Your task to perform on an android device: change alarm snooze length Image 0: 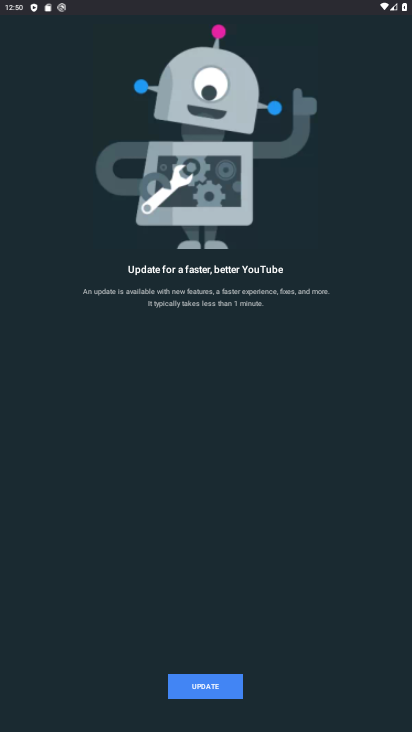
Step 0: press home button
Your task to perform on an android device: change alarm snooze length Image 1: 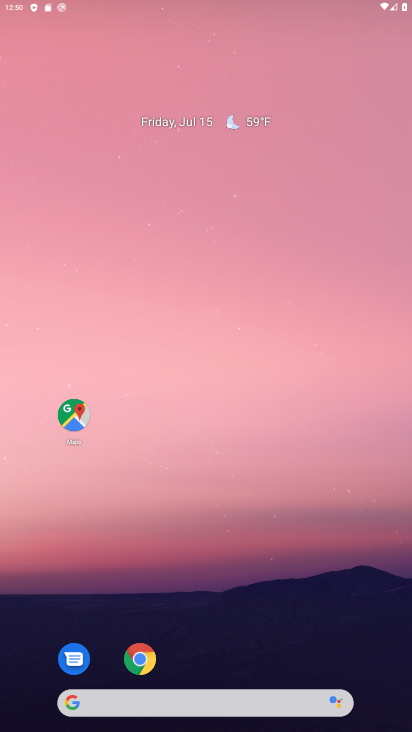
Step 1: drag from (213, 655) to (296, 133)
Your task to perform on an android device: change alarm snooze length Image 2: 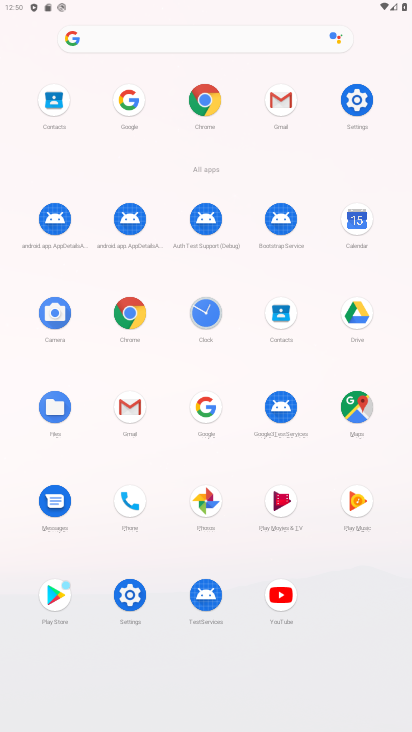
Step 2: click (206, 314)
Your task to perform on an android device: change alarm snooze length Image 3: 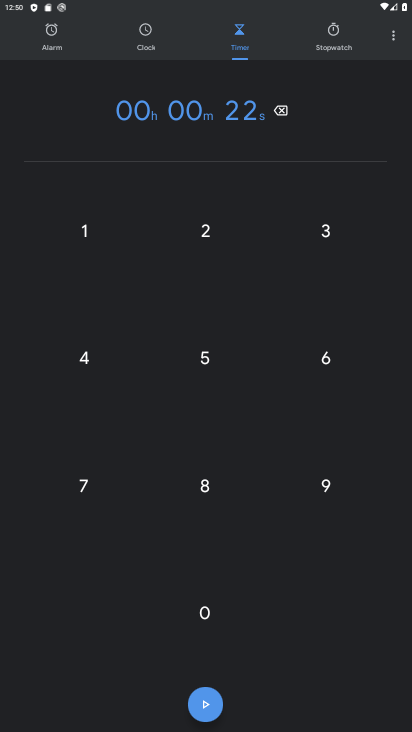
Step 3: click (390, 33)
Your task to perform on an android device: change alarm snooze length Image 4: 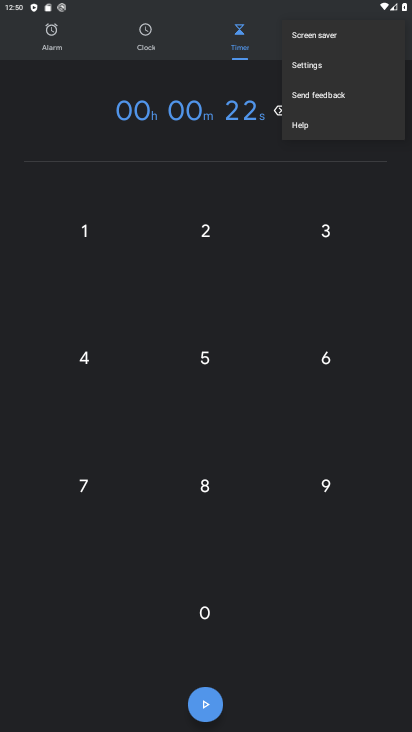
Step 4: click (307, 70)
Your task to perform on an android device: change alarm snooze length Image 5: 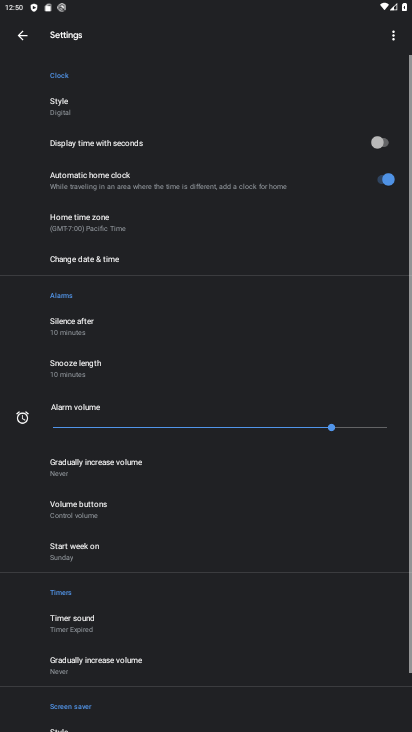
Step 5: click (79, 375)
Your task to perform on an android device: change alarm snooze length Image 6: 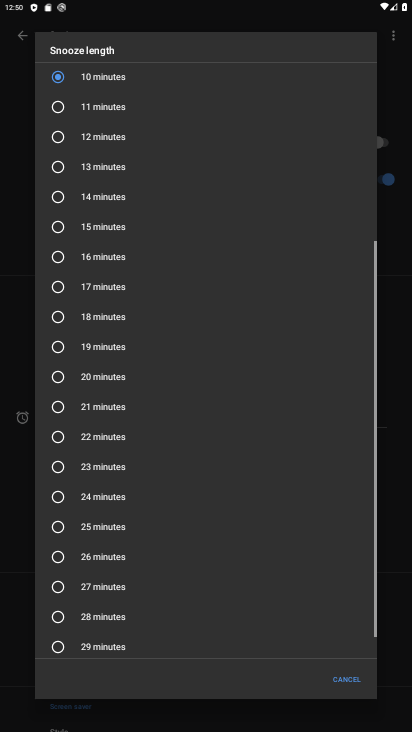
Step 6: click (54, 226)
Your task to perform on an android device: change alarm snooze length Image 7: 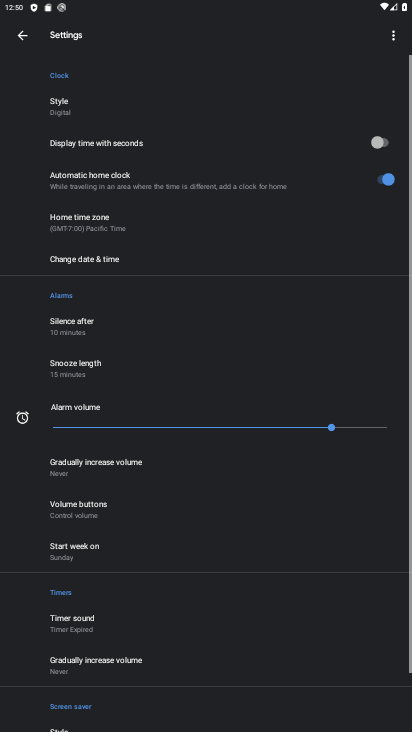
Step 7: task complete